Your task to perform on an android device: set default search engine in the chrome app Image 0: 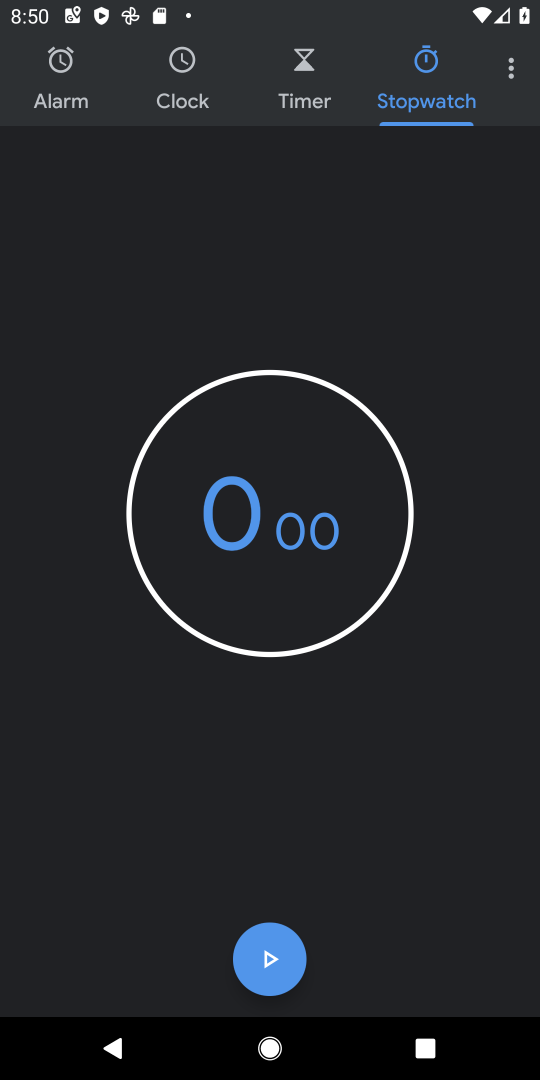
Step 0: press home button
Your task to perform on an android device: set default search engine in the chrome app Image 1: 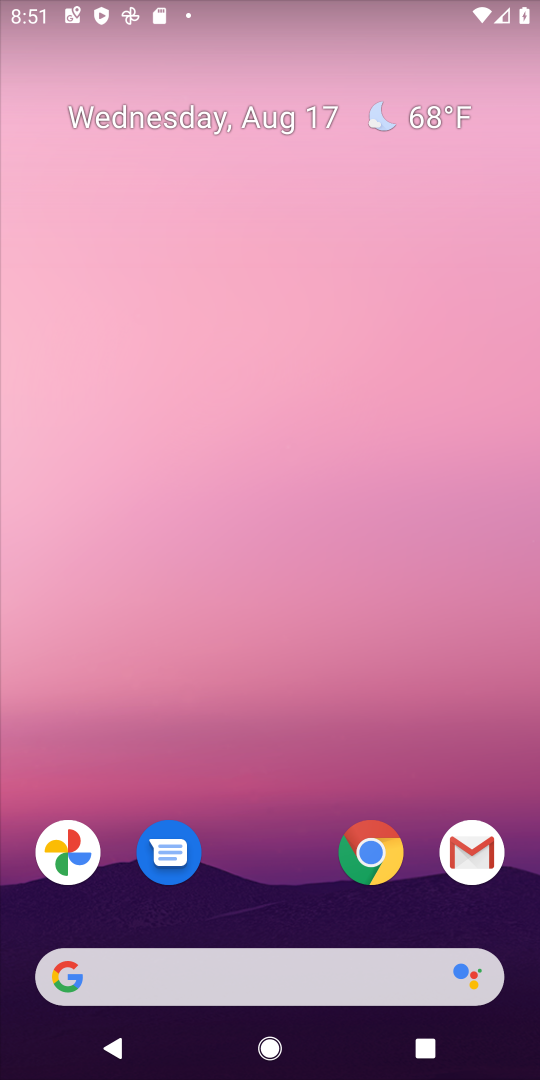
Step 1: click (373, 849)
Your task to perform on an android device: set default search engine in the chrome app Image 2: 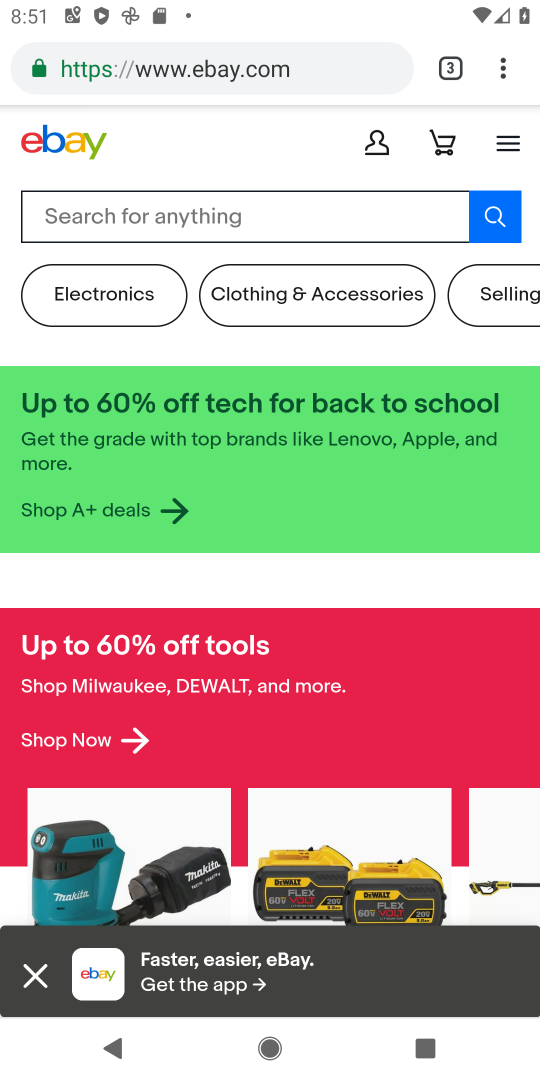
Step 2: click (506, 63)
Your task to perform on an android device: set default search engine in the chrome app Image 3: 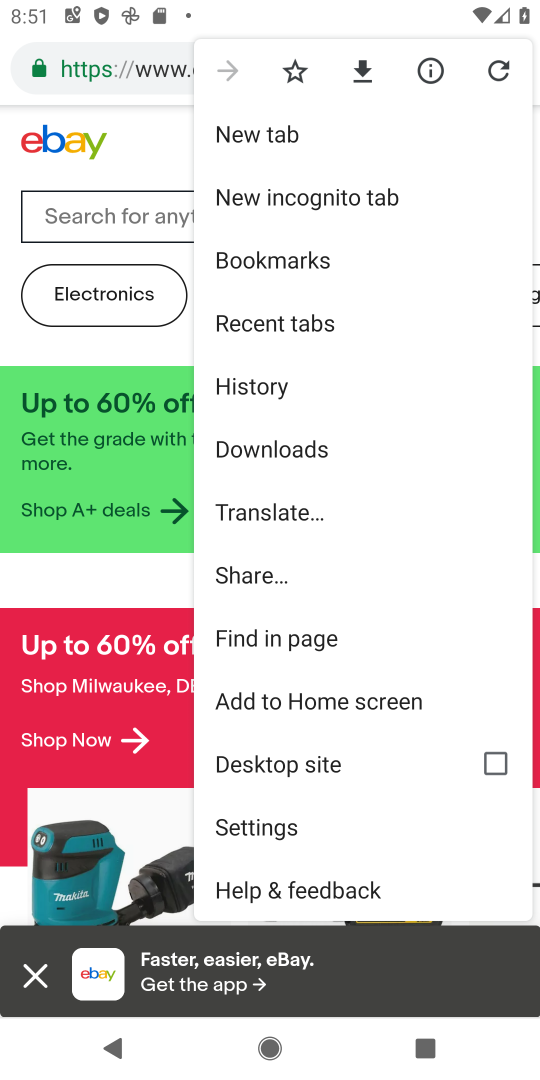
Step 3: click (285, 813)
Your task to perform on an android device: set default search engine in the chrome app Image 4: 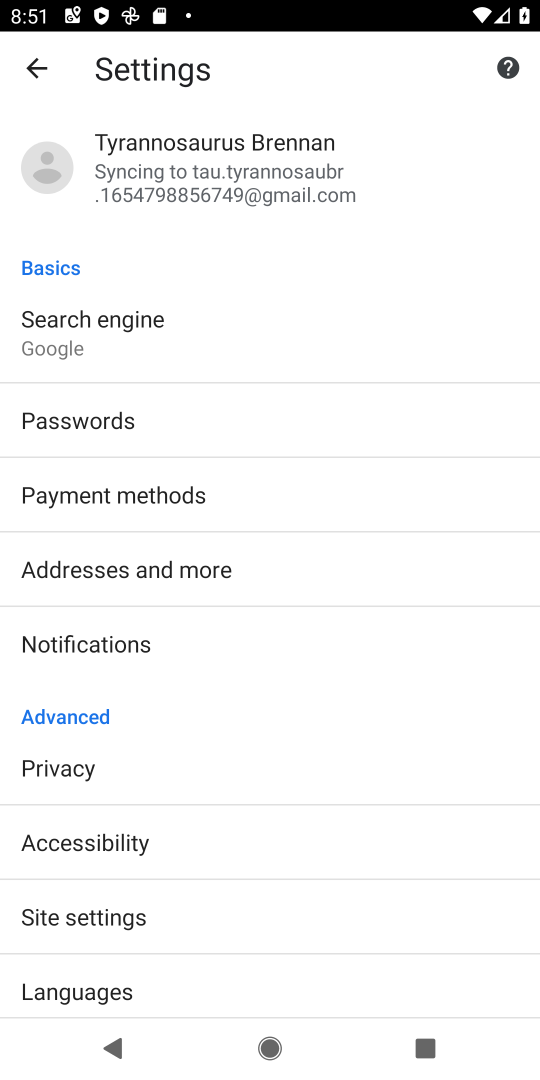
Step 4: click (69, 326)
Your task to perform on an android device: set default search engine in the chrome app Image 5: 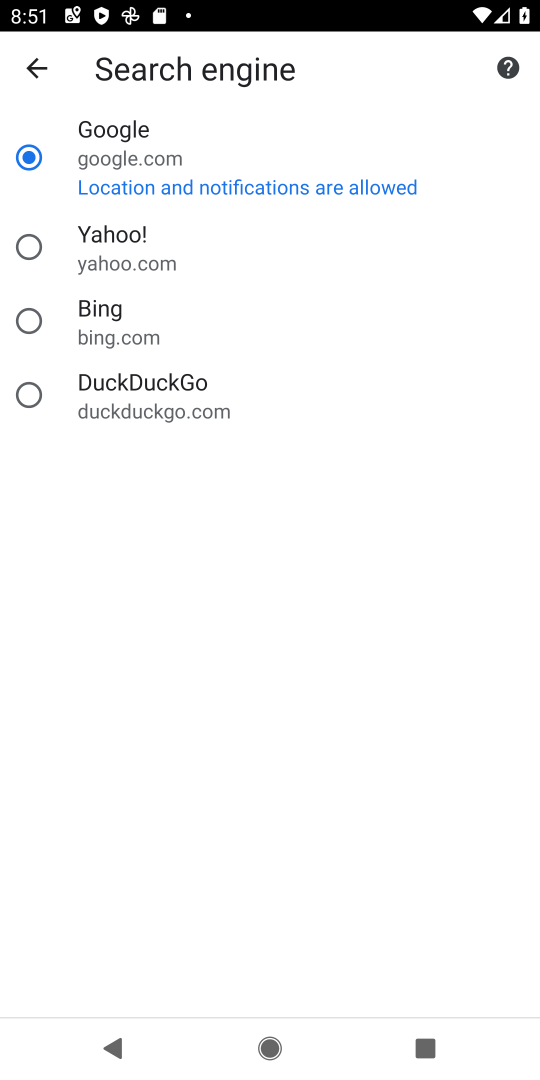
Step 5: task complete